Your task to perform on an android device: set an alarm Image 0: 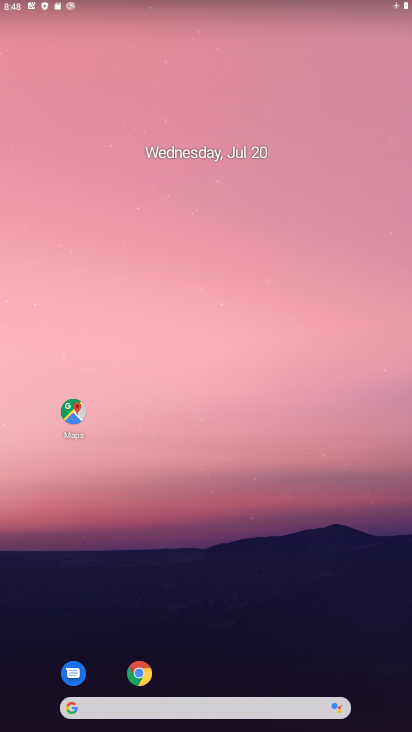
Step 0: drag from (233, 727) to (176, 167)
Your task to perform on an android device: set an alarm Image 1: 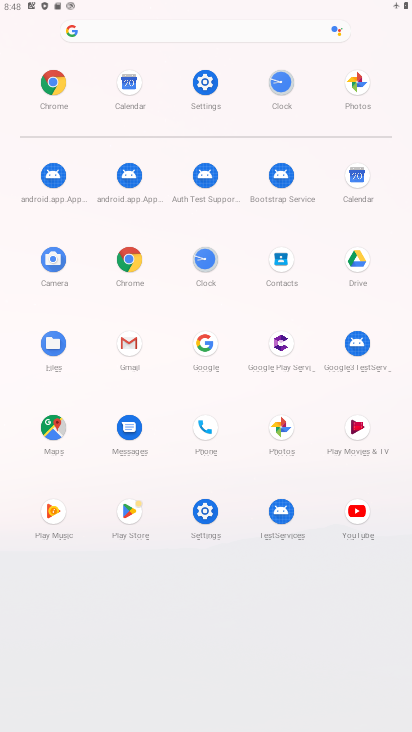
Step 1: click (213, 262)
Your task to perform on an android device: set an alarm Image 2: 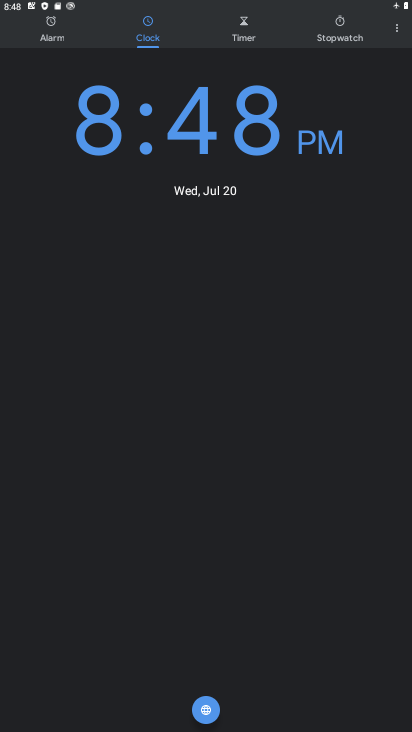
Step 2: click (52, 35)
Your task to perform on an android device: set an alarm Image 3: 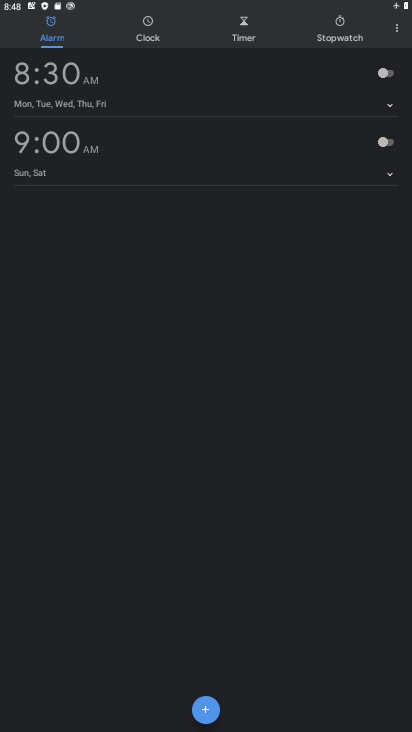
Step 3: click (200, 714)
Your task to perform on an android device: set an alarm Image 4: 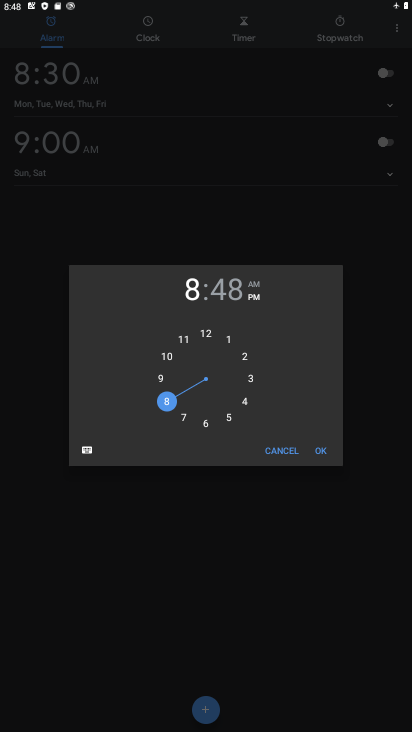
Step 4: click (245, 353)
Your task to perform on an android device: set an alarm Image 5: 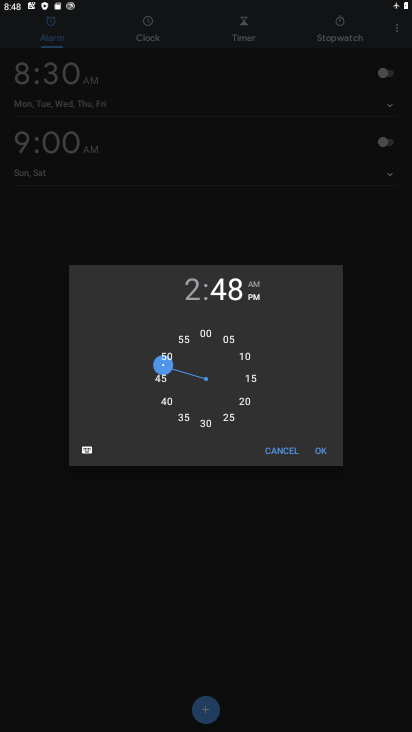
Step 5: click (323, 453)
Your task to perform on an android device: set an alarm Image 6: 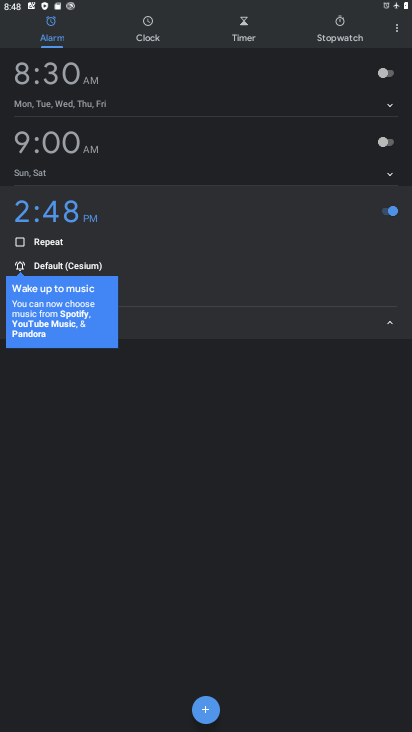
Step 6: task complete